Your task to perform on an android device: Search for "logitech g933" on bestbuy, select the first entry, and add it to the cart. Image 0: 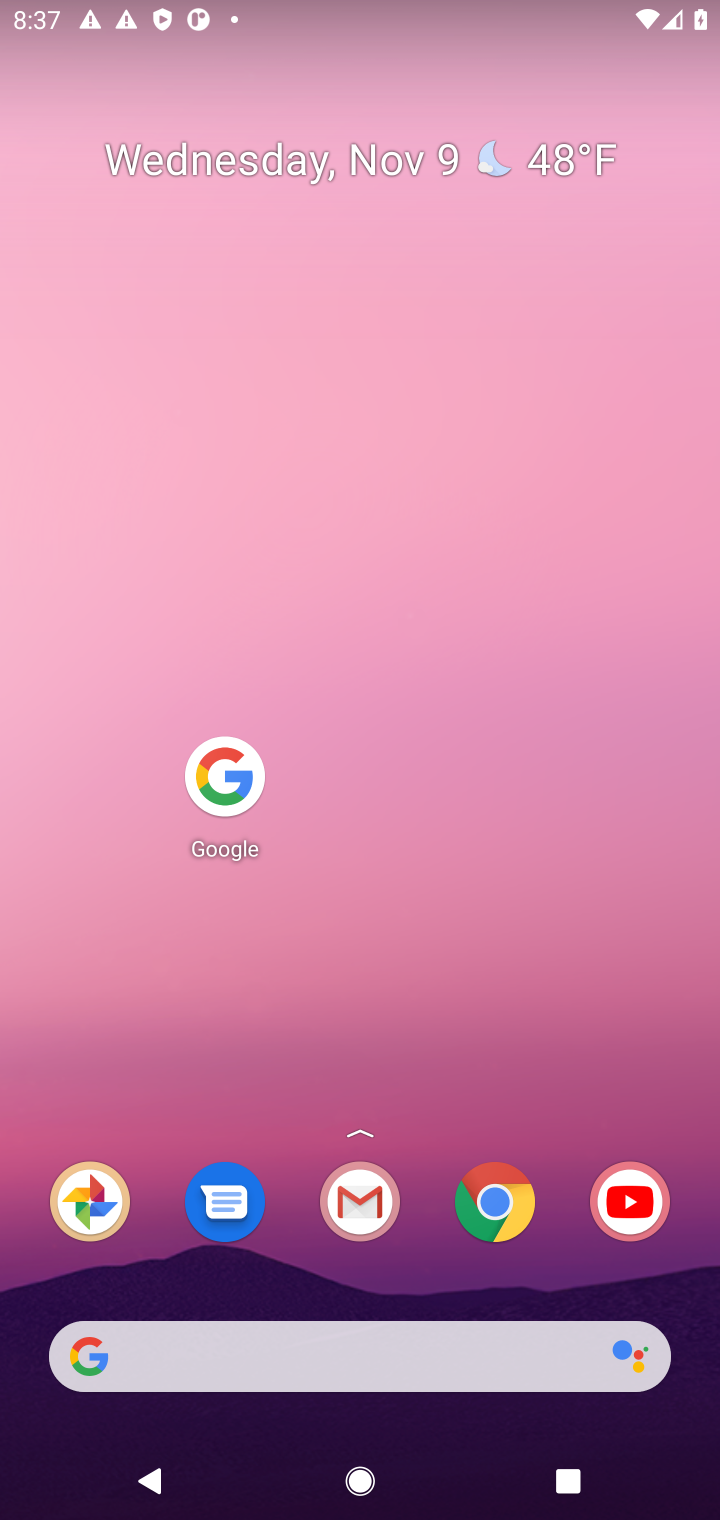
Step 0: press home button
Your task to perform on an android device: Search for "logitech g933" on bestbuy, select the first entry, and add it to the cart. Image 1: 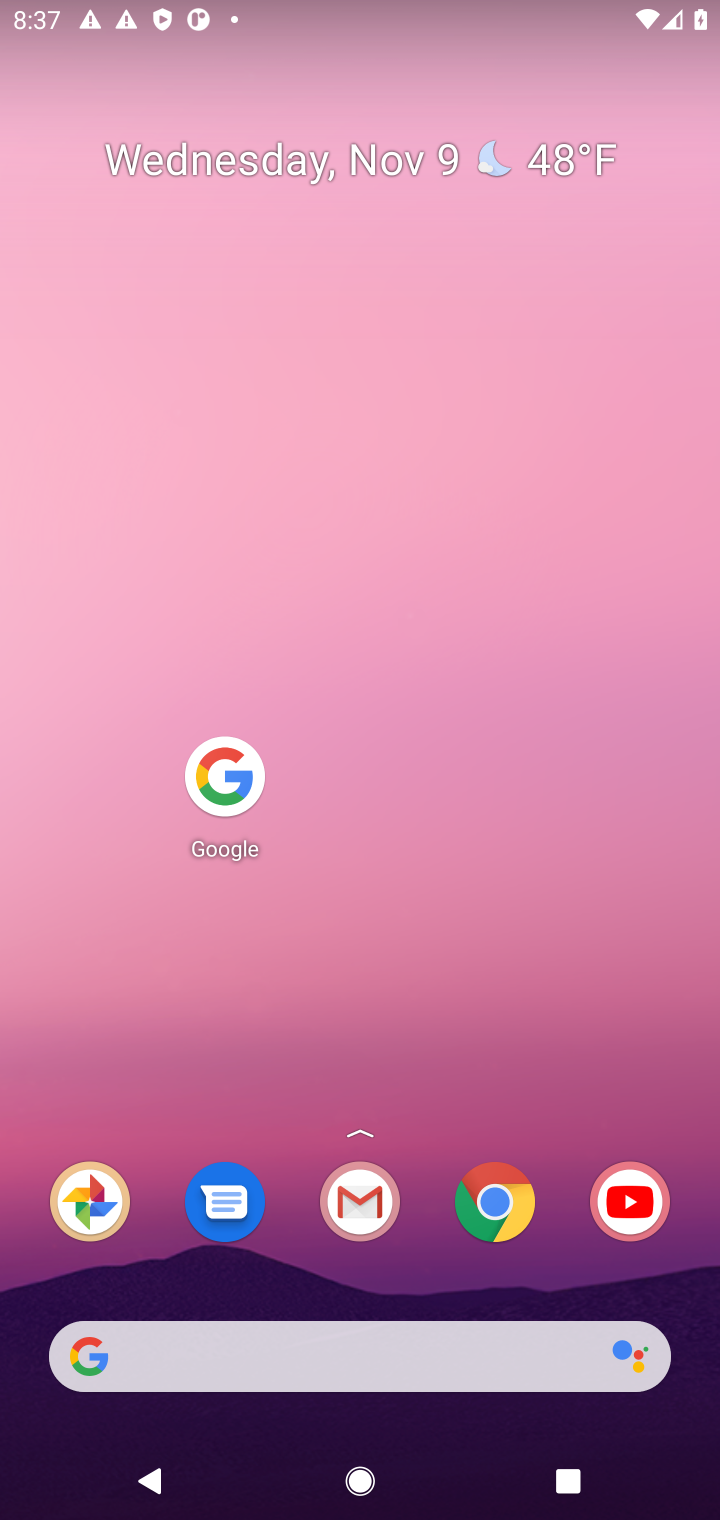
Step 1: click (217, 773)
Your task to perform on an android device: Search for "logitech g933" on bestbuy, select the first entry, and add it to the cart. Image 2: 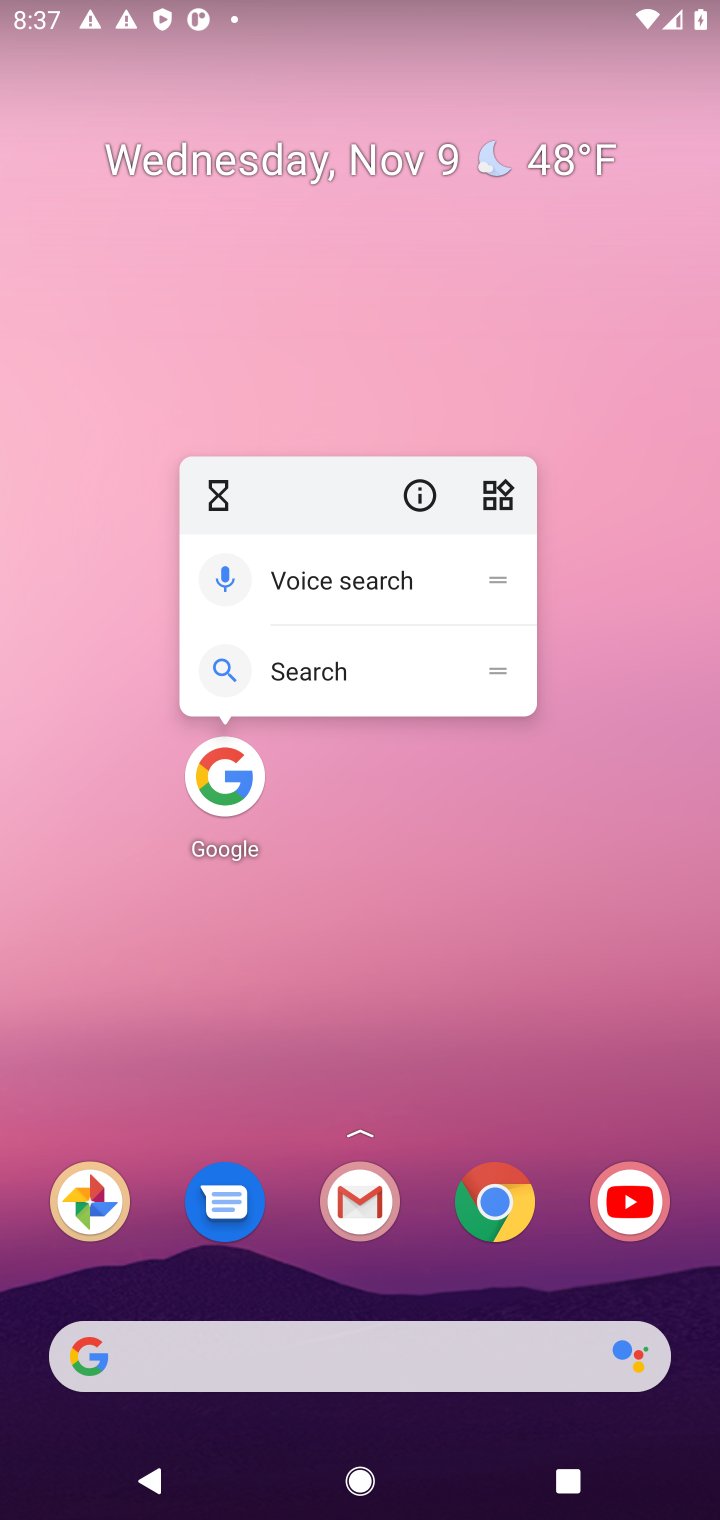
Step 2: click (241, 782)
Your task to perform on an android device: Search for "logitech g933" on bestbuy, select the first entry, and add it to the cart. Image 3: 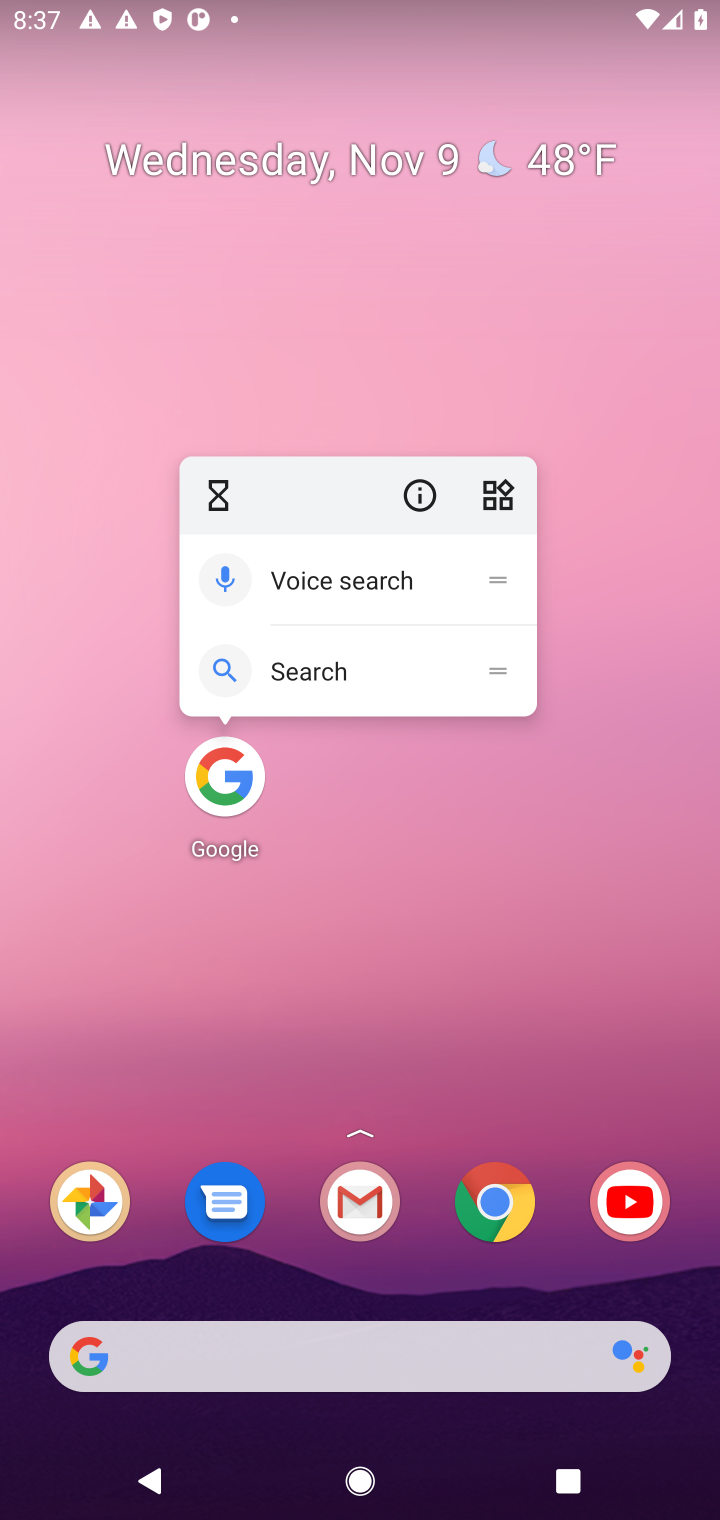
Step 3: click (209, 776)
Your task to perform on an android device: Search for "logitech g933" on bestbuy, select the first entry, and add it to the cart. Image 4: 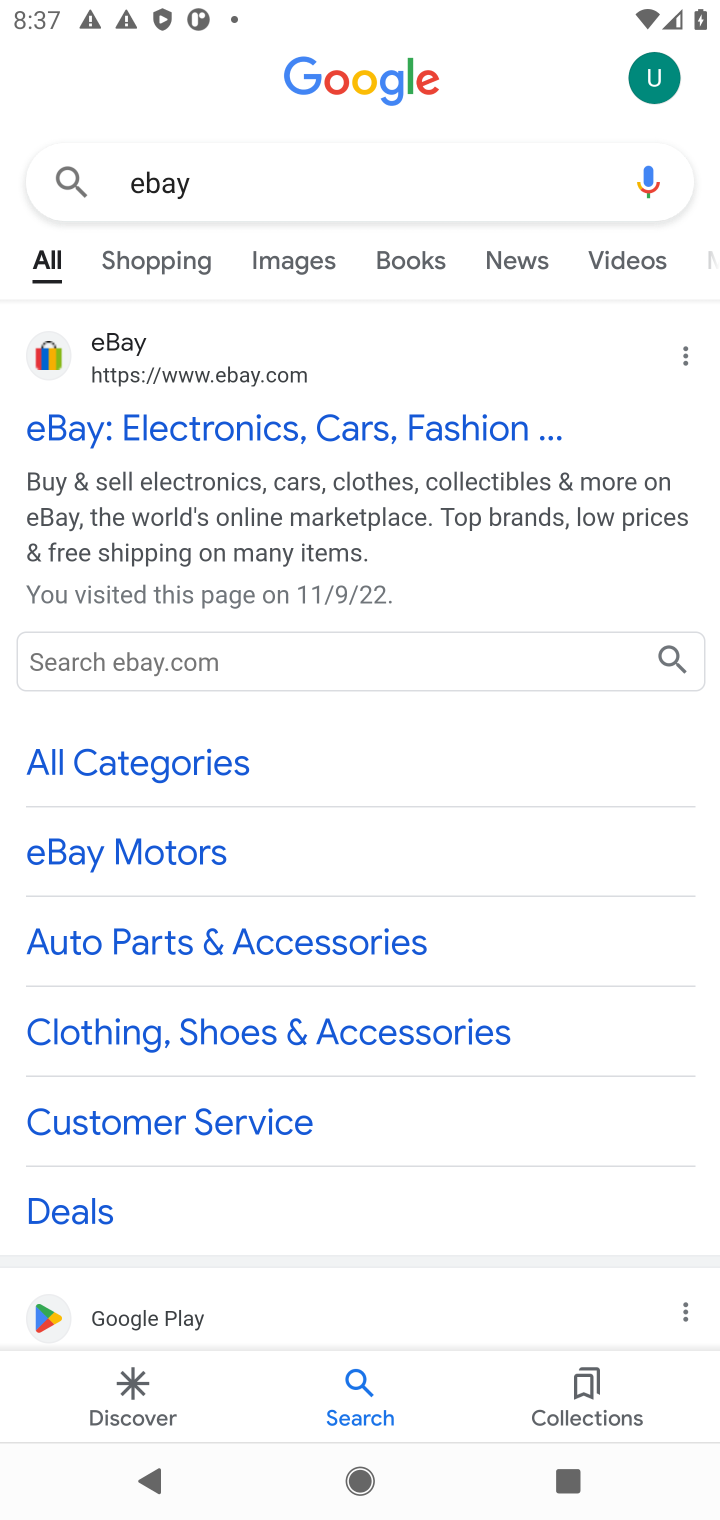
Step 4: click (335, 185)
Your task to perform on an android device: Search for "logitech g933" on bestbuy, select the first entry, and add it to the cart. Image 5: 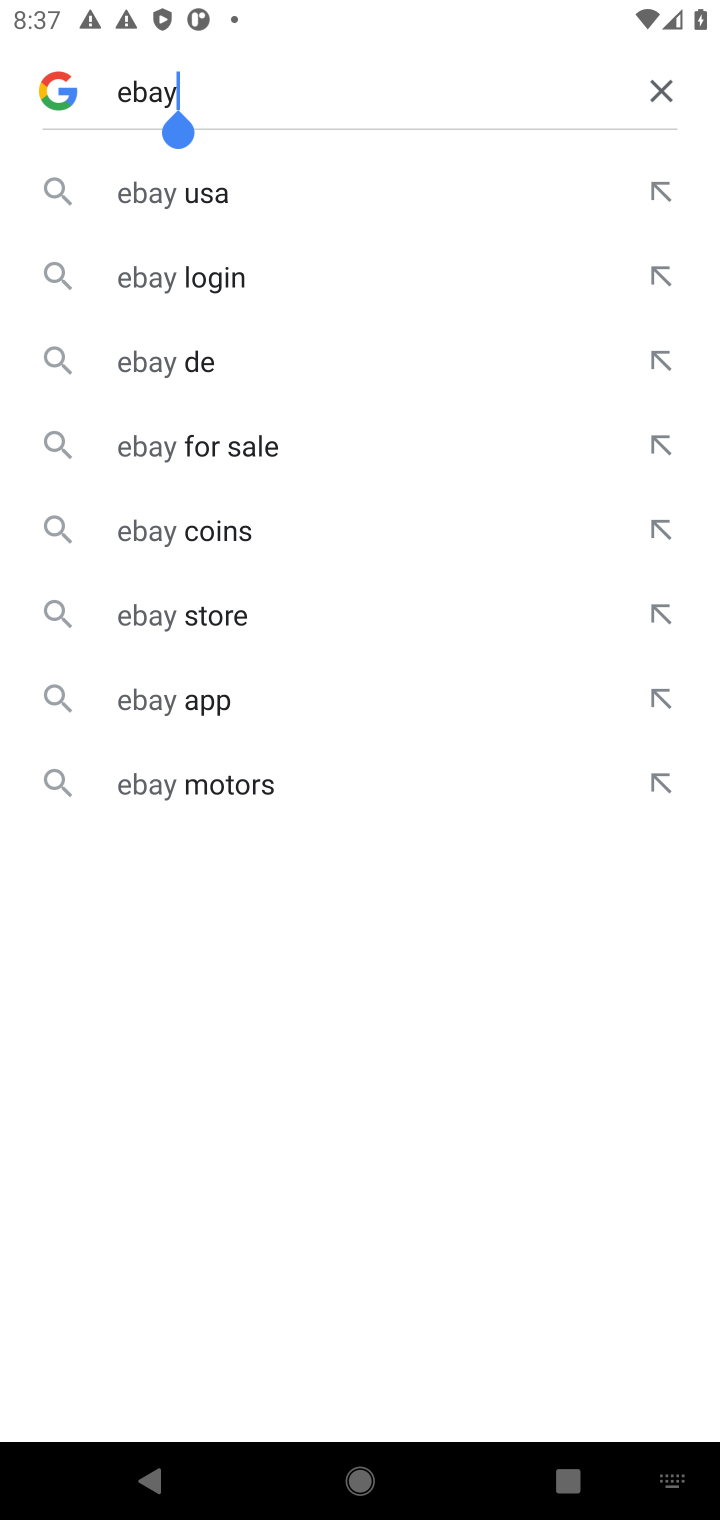
Step 5: click (658, 89)
Your task to perform on an android device: Search for "logitech g933" on bestbuy, select the first entry, and add it to the cart. Image 6: 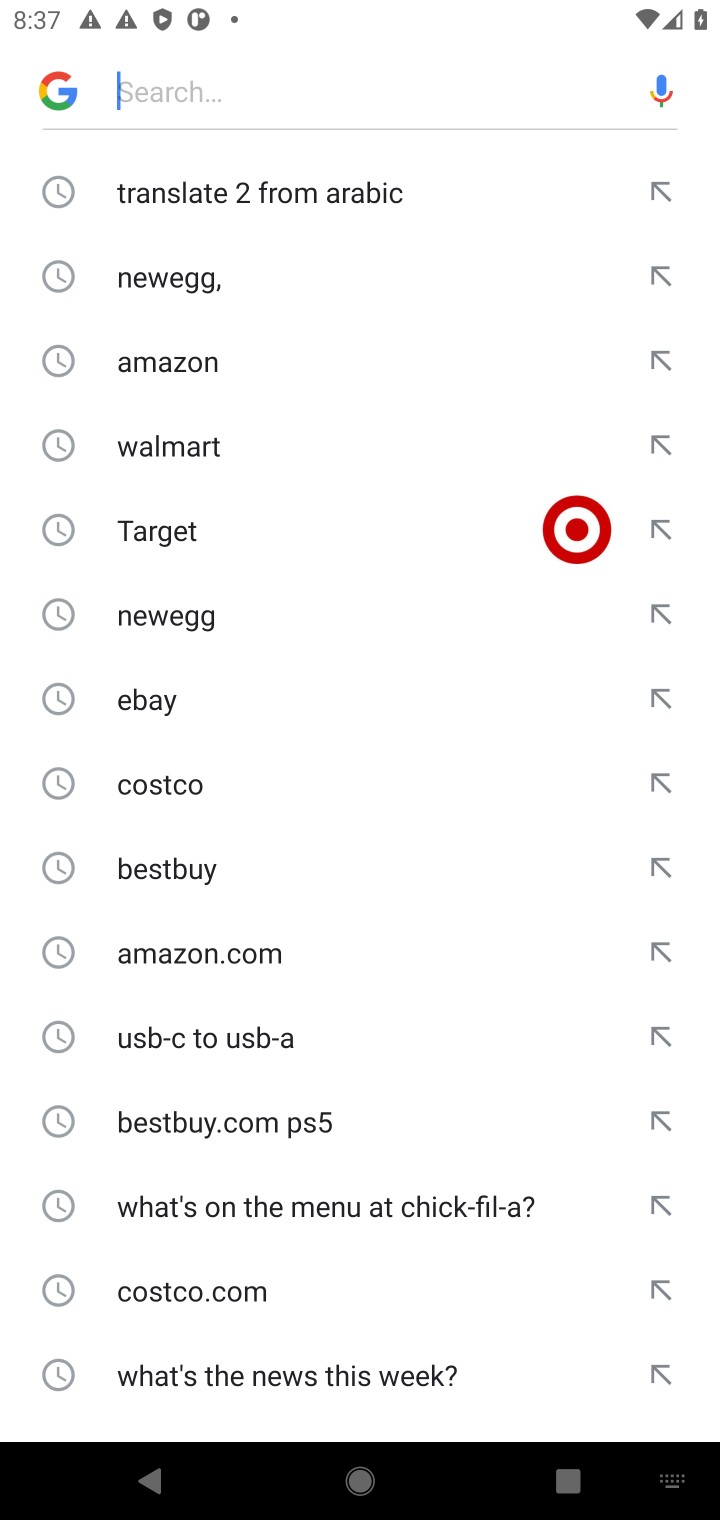
Step 6: click (156, 864)
Your task to perform on an android device: Search for "logitech g933" on bestbuy, select the first entry, and add it to the cart. Image 7: 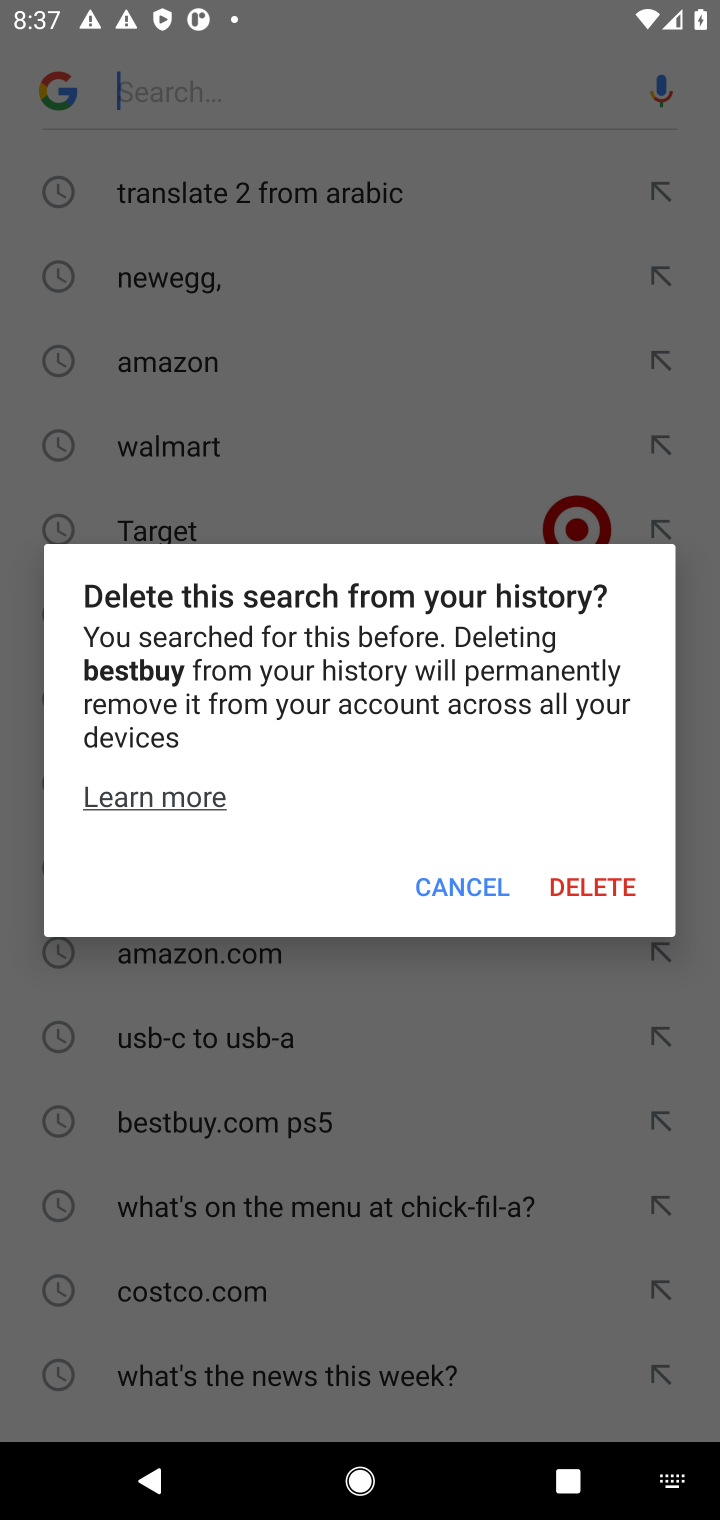
Step 7: click (470, 893)
Your task to perform on an android device: Search for "logitech g933" on bestbuy, select the first entry, and add it to the cart. Image 8: 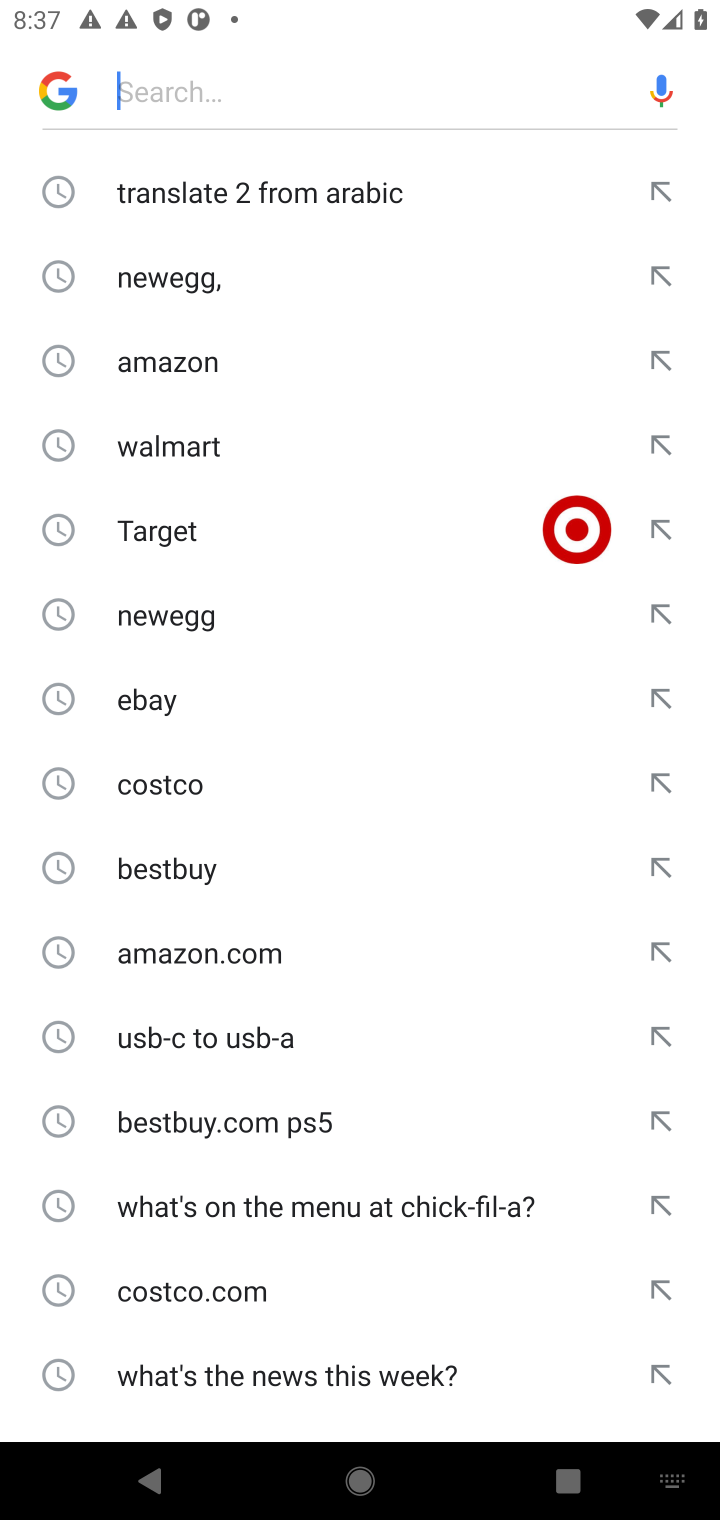
Step 8: click (141, 863)
Your task to perform on an android device: Search for "logitech g933" on bestbuy, select the first entry, and add it to the cart. Image 9: 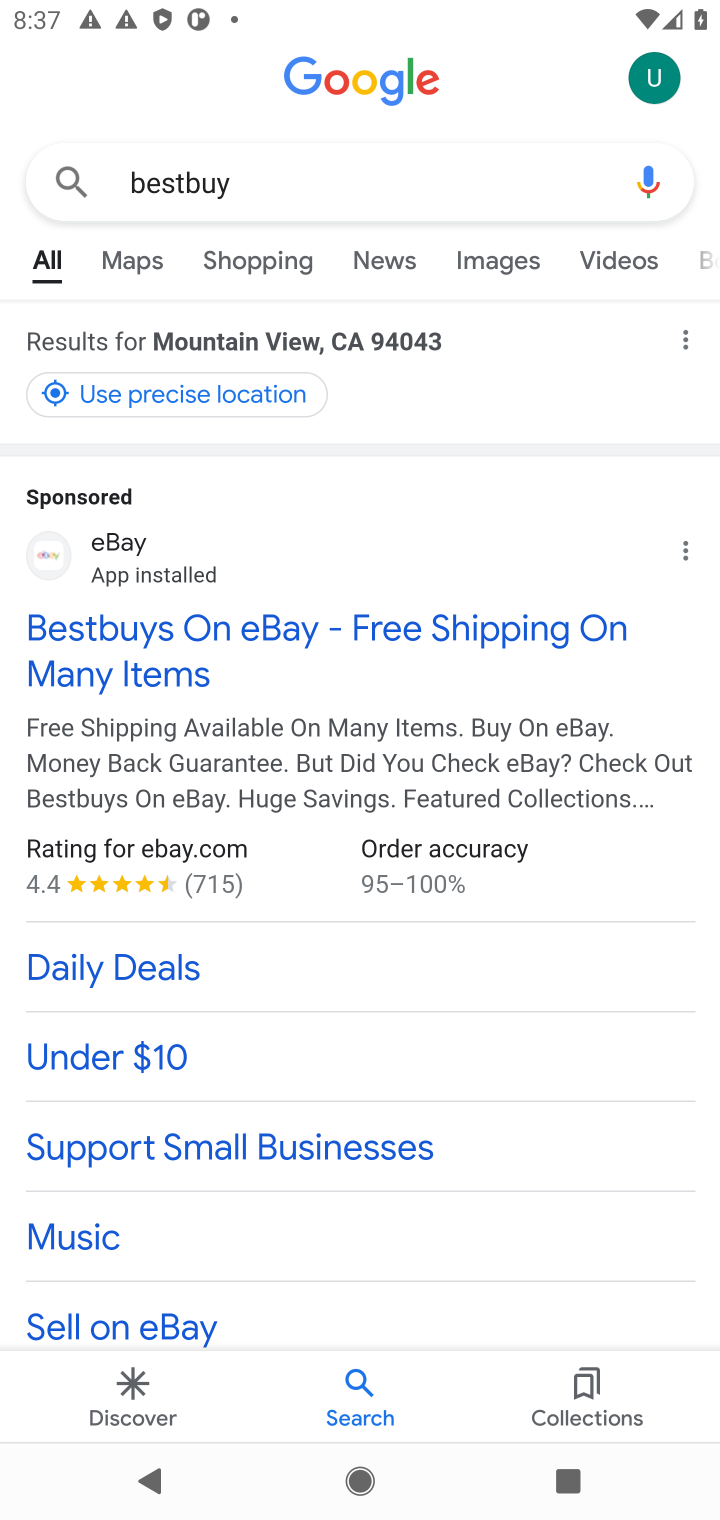
Step 9: drag from (281, 1039) to (675, 421)
Your task to perform on an android device: Search for "logitech g933" on bestbuy, select the first entry, and add it to the cart. Image 10: 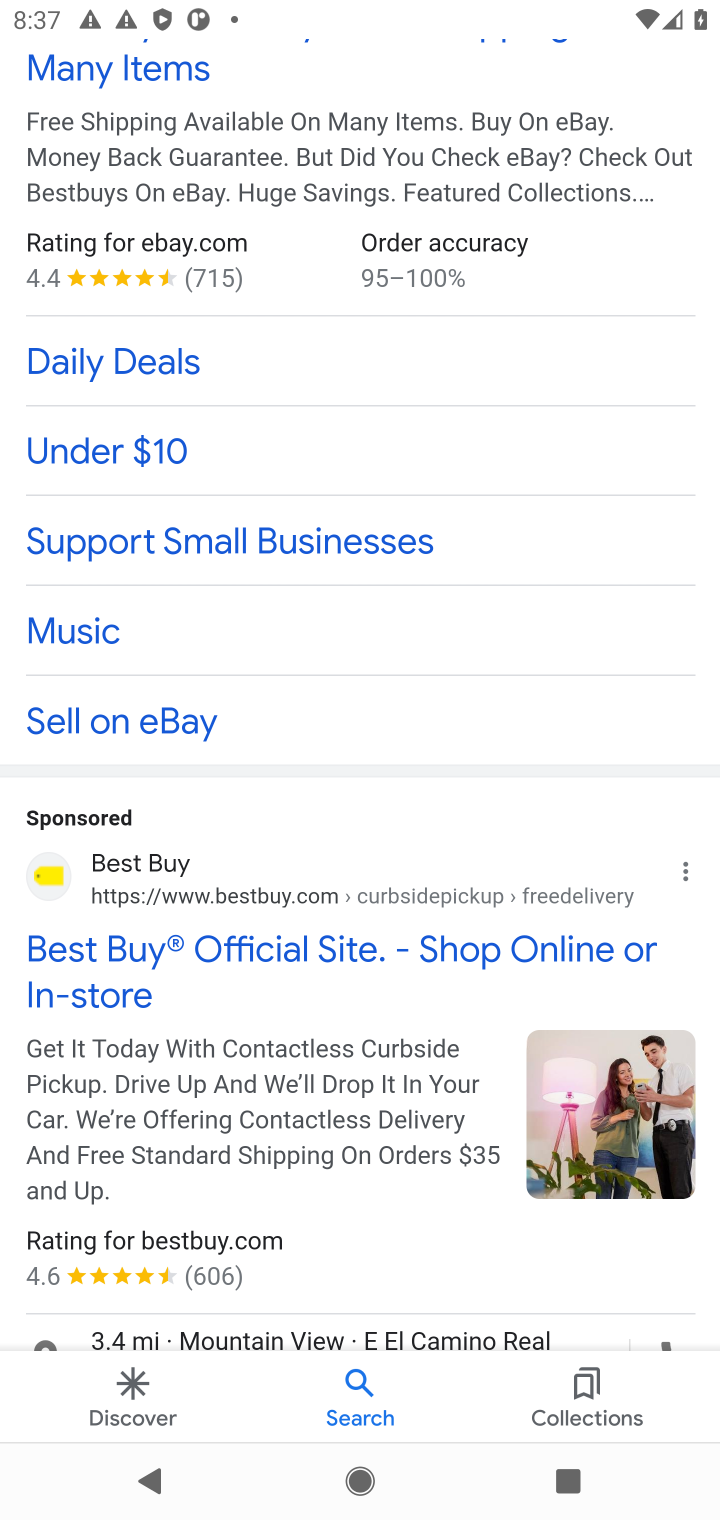
Step 10: click (223, 946)
Your task to perform on an android device: Search for "logitech g933" on bestbuy, select the first entry, and add it to the cart. Image 11: 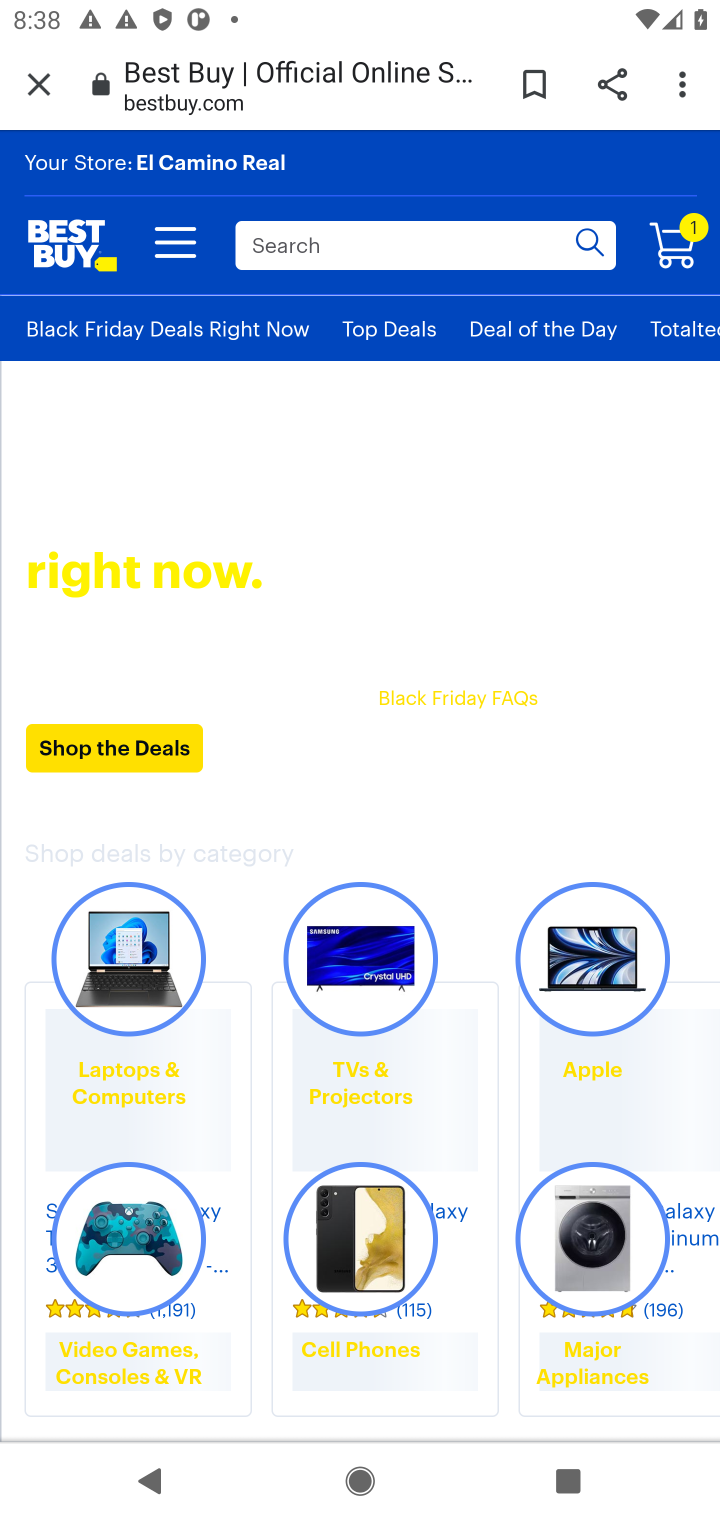
Step 11: click (357, 246)
Your task to perform on an android device: Search for "logitech g933" on bestbuy, select the first entry, and add it to the cart. Image 12: 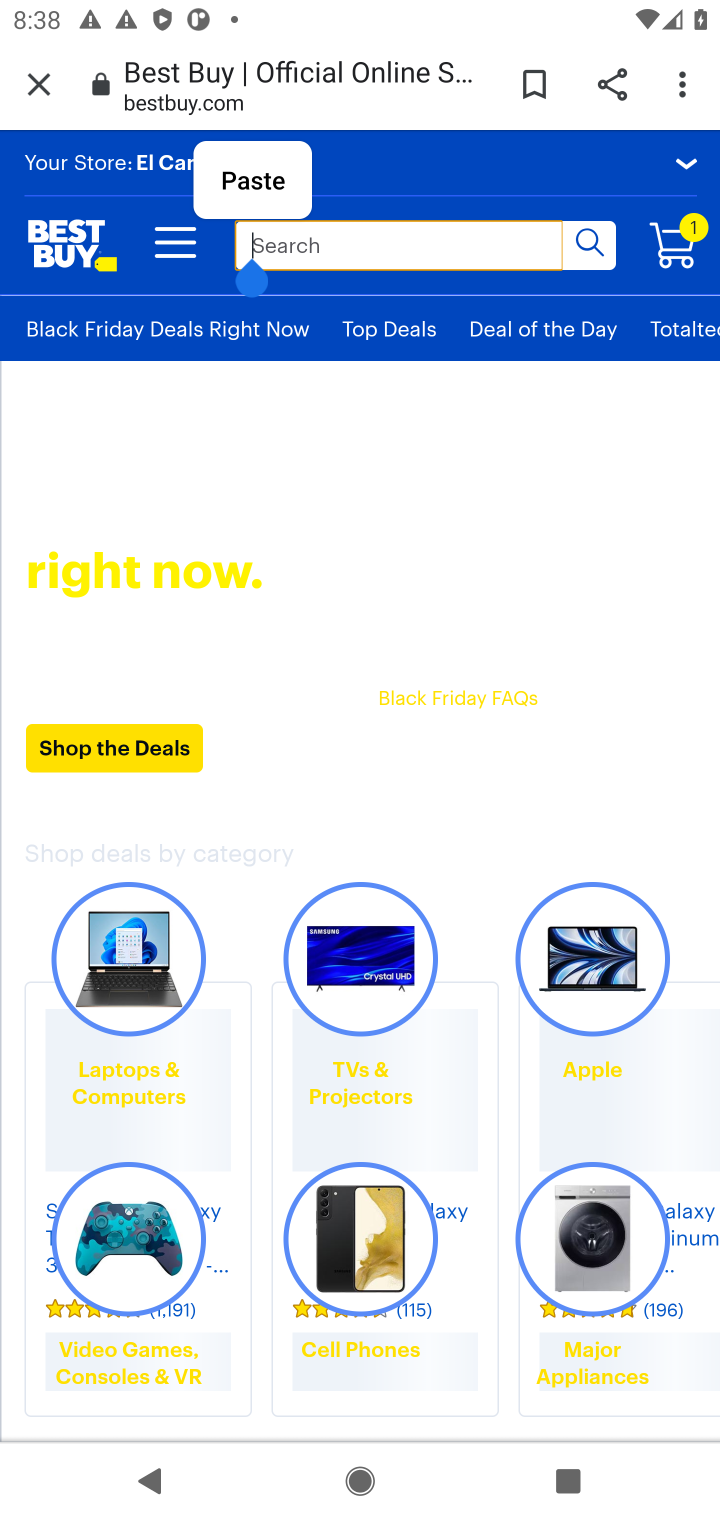
Step 12: type "logitech g933"
Your task to perform on an android device: Search for "logitech g933" on bestbuy, select the first entry, and add it to the cart. Image 13: 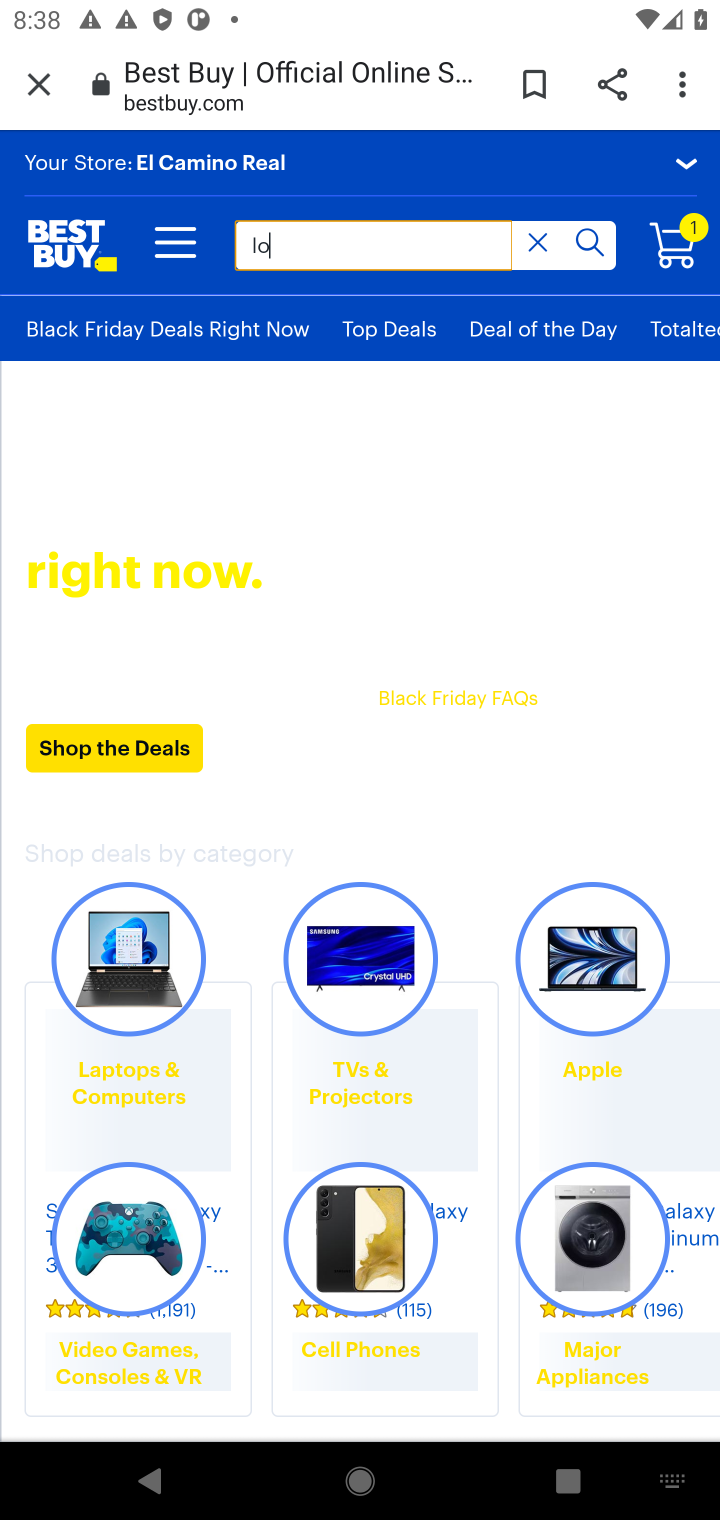
Step 13: press enter
Your task to perform on an android device: Search for "logitech g933" on bestbuy, select the first entry, and add it to the cart. Image 14: 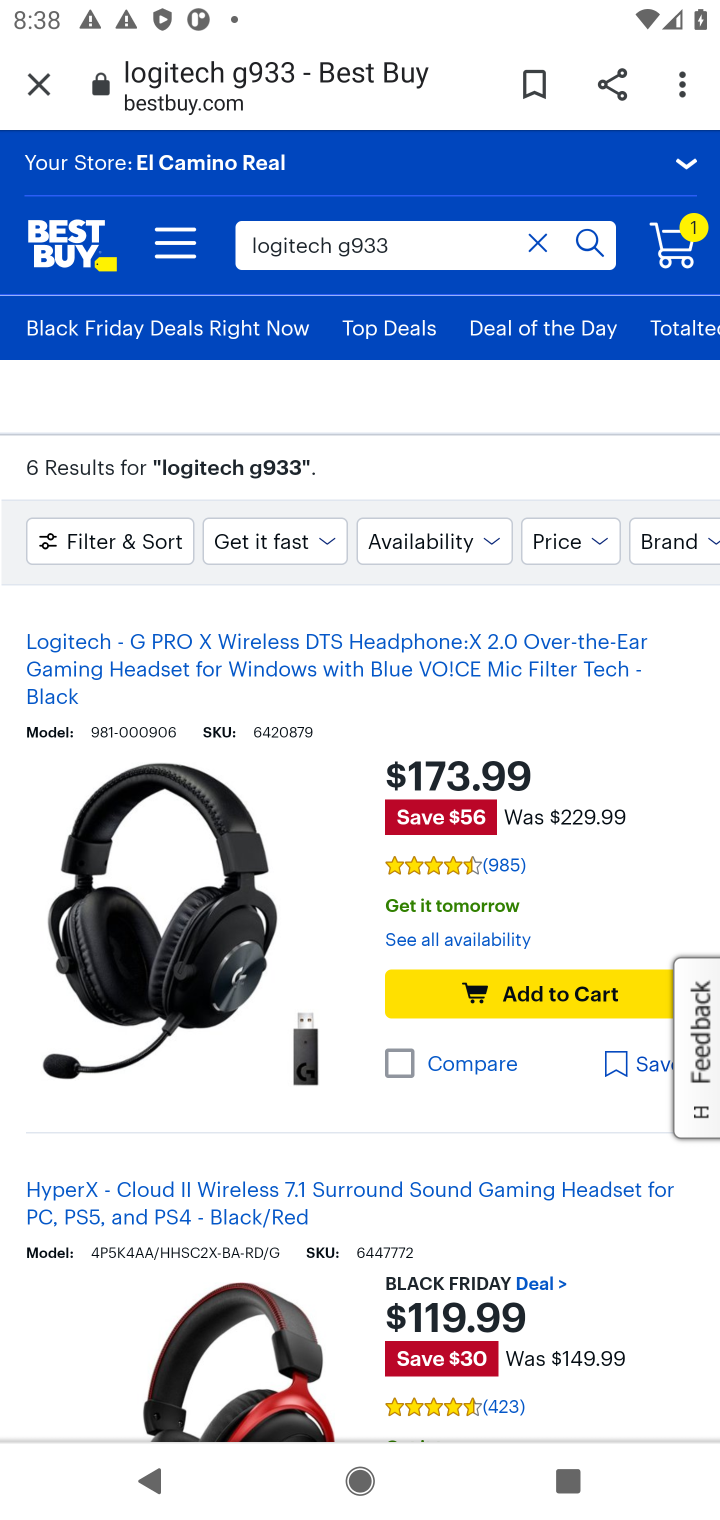
Step 14: task complete